Your task to perform on an android device: uninstall "DuckDuckGo Privacy Browser" Image 0: 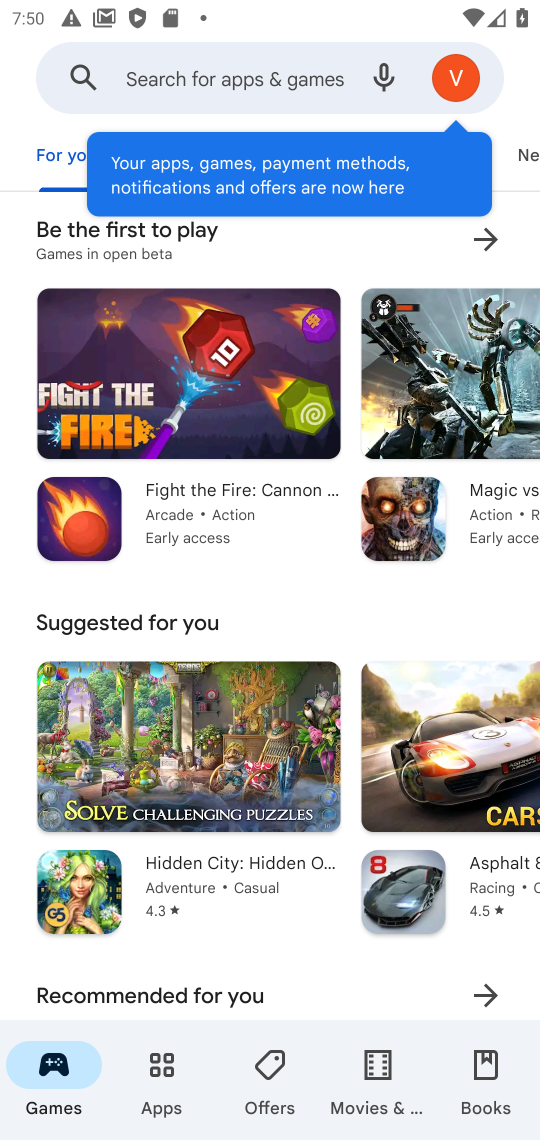
Step 0: click (267, 76)
Your task to perform on an android device: uninstall "DuckDuckGo Privacy Browser" Image 1: 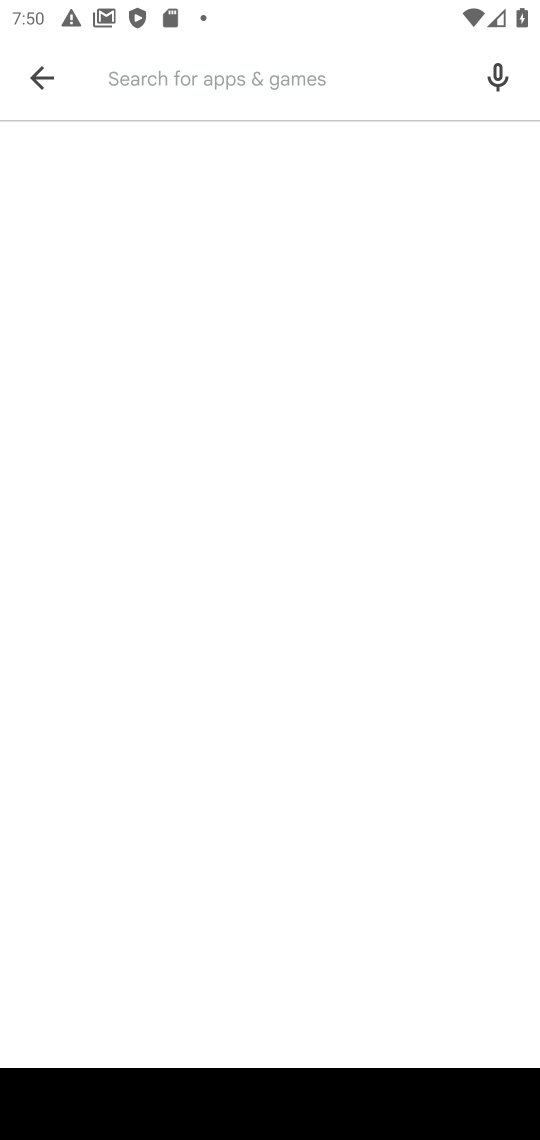
Step 1: type "DuckDuckGo Privacy Browser"
Your task to perform on an android device: uninstall "DuckDuckGo Privacy Browser" Image 2: 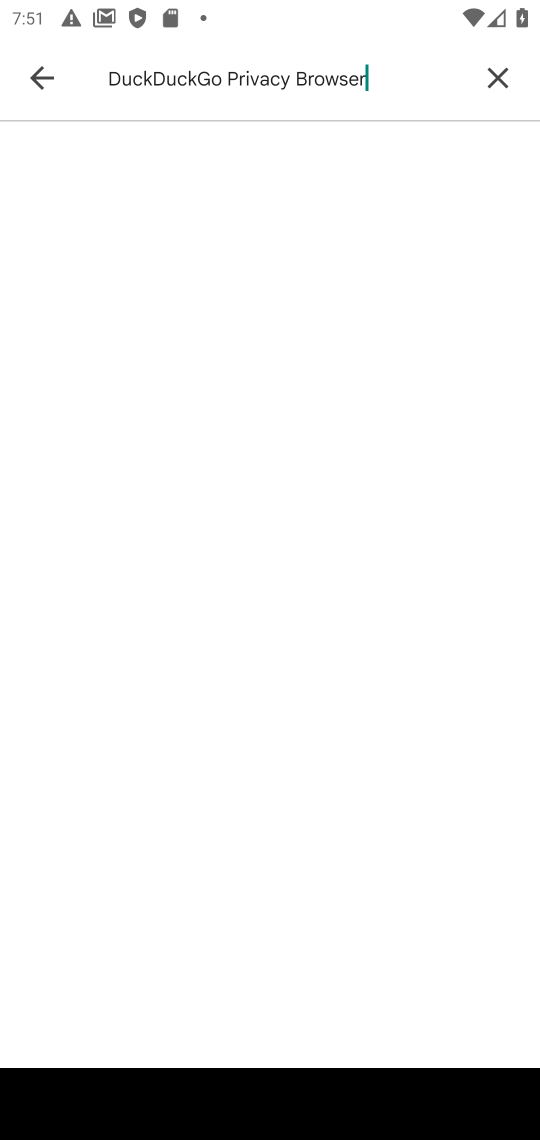
Step 2: type ""
Your task to perform on an android device: uninstall "DuckDuckGo Privacy Browser" Image 3: 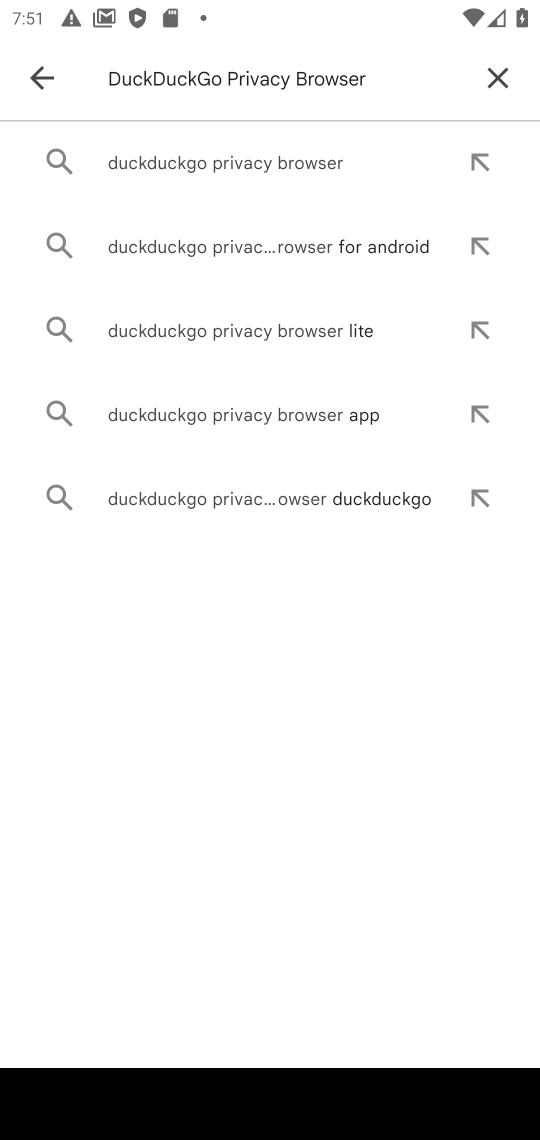
Step 3: click (324, 173)
Your task to perform on an android device: uninstall "DuckDuckGo Privacy Browser" Image 4: 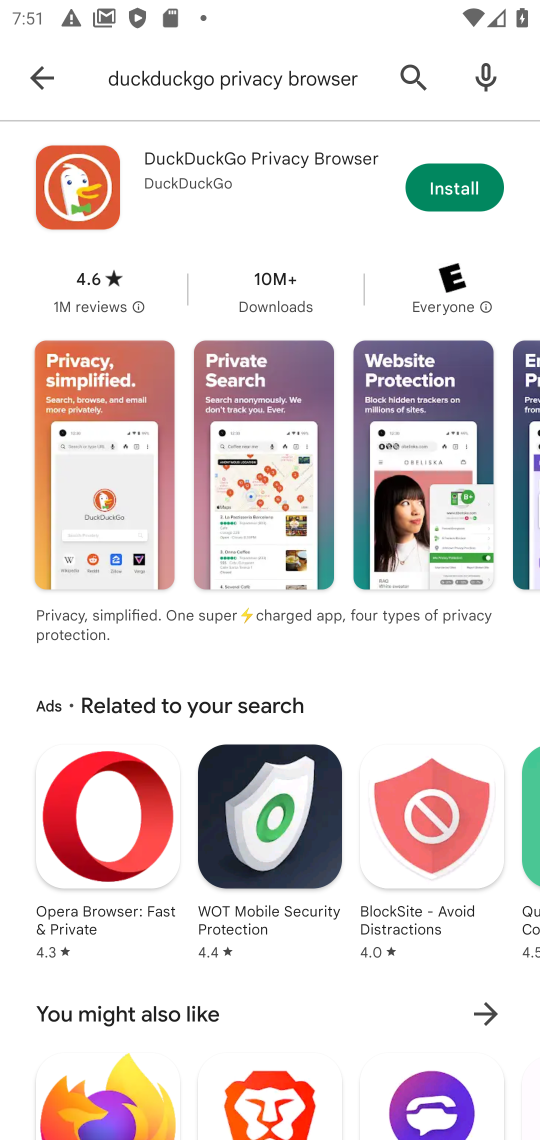
Step 4: click (218, 184)
Your task to perform on an android device: uninstall "DuckDuckGo Privacy Browser" Image 5: 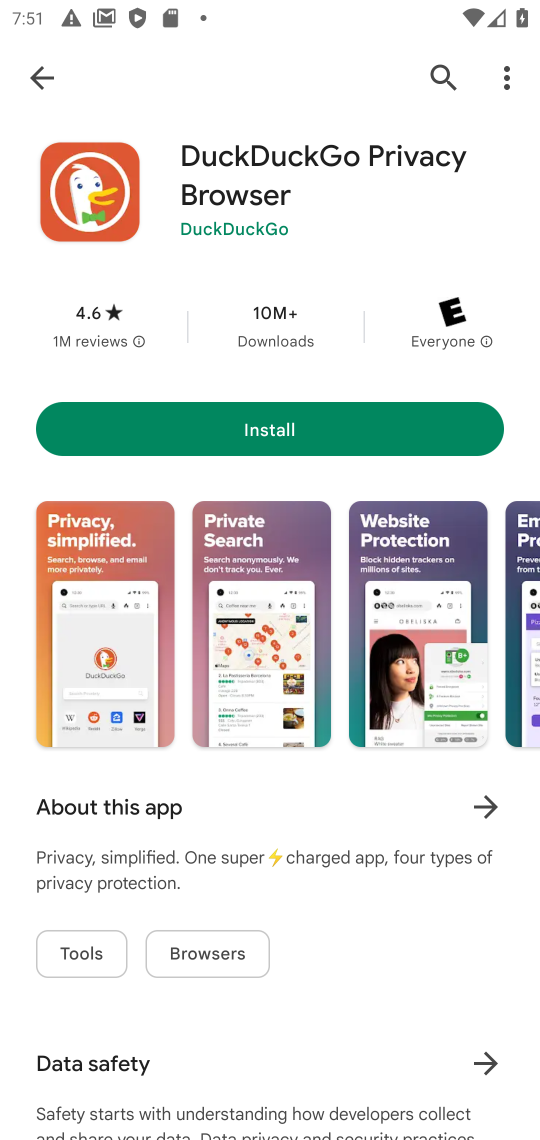
Step 5: task complete